Your task to perform on an android device: Go to wifi settings Image 0: 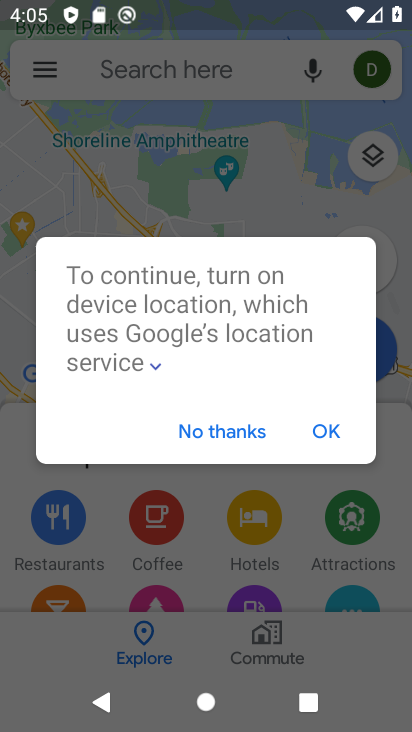
Step 0: press home button
Your task to perform on an android device: Go to wifi settings Image 1: 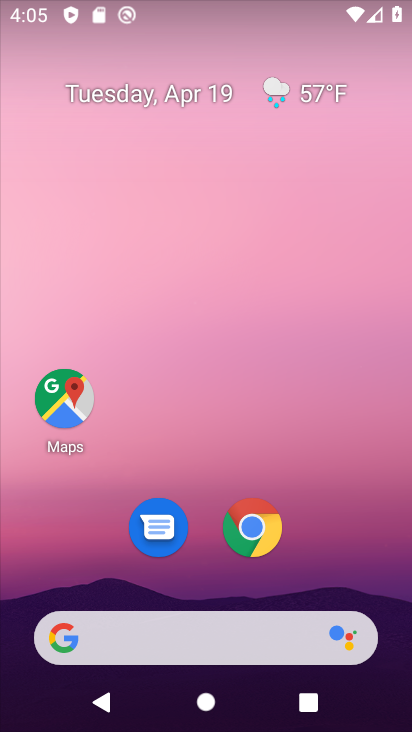
Step 1: drag from (374, 585) to (333, 130)
Your task to perform on an android device: Go to wifi settings Image 2: 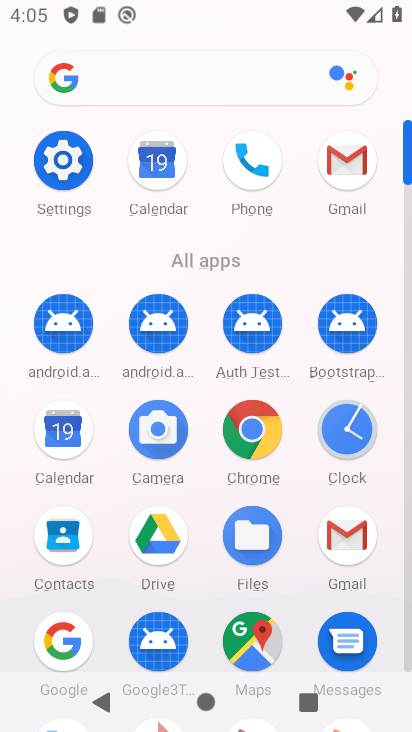
Step 2: click (405, 660)
Your task to perform on an android device: Go to wifi settings Image 3: 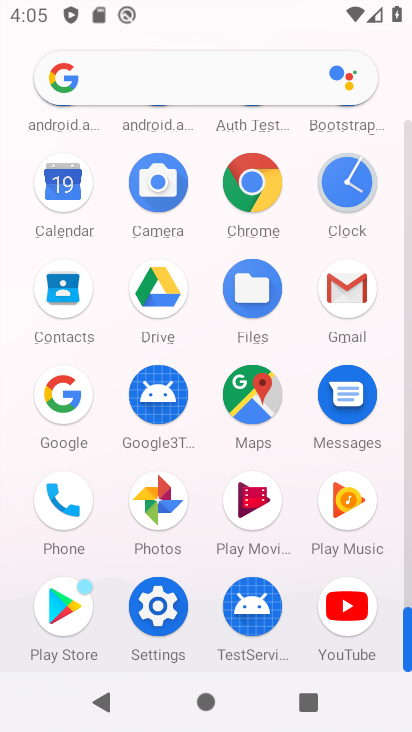
Step 3: click (158, 607)
Your task to perform on an android device: Go to wifi settings Image 4: 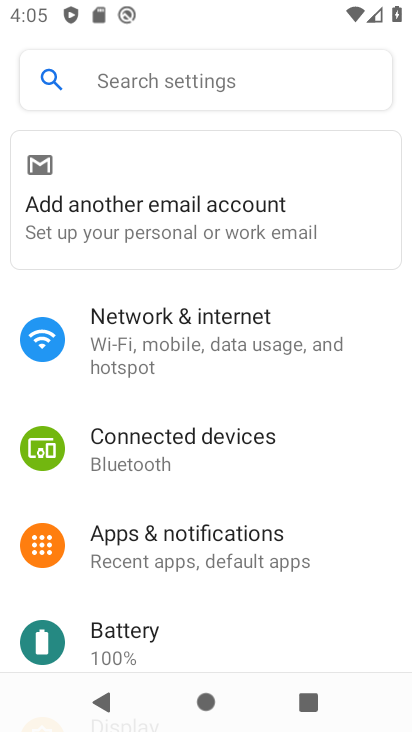
Step 4: click (120, 338)
Your task to perform on an android device: Go to wifi settings Image 5: 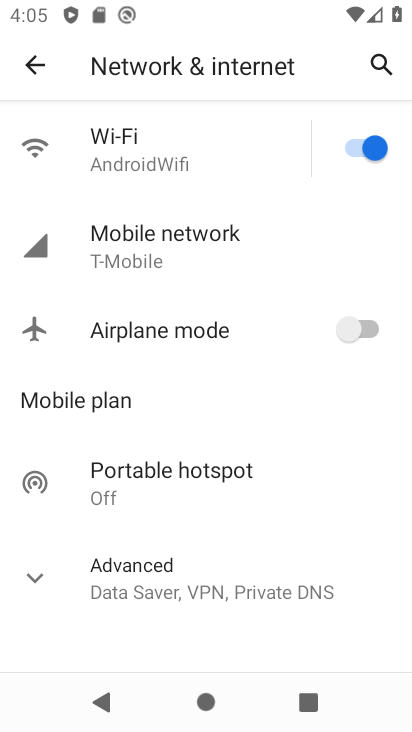
Step 5: click (103, 154)
Your task to perform on an android device: Go to wifi settings Image 6: 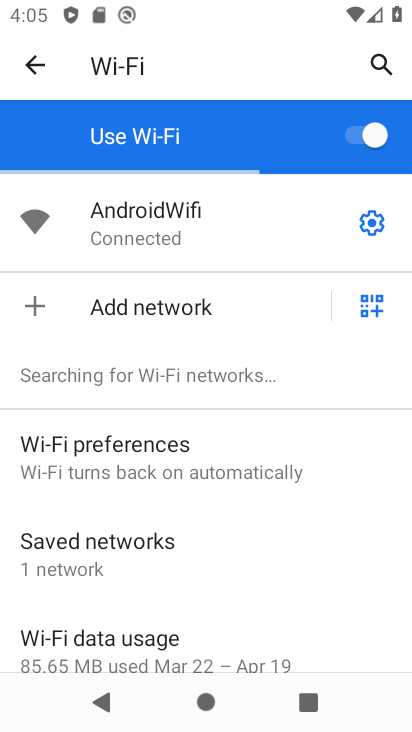
Step 6: task complete